Your task to perform on an android device: Go to eBay Image 0: 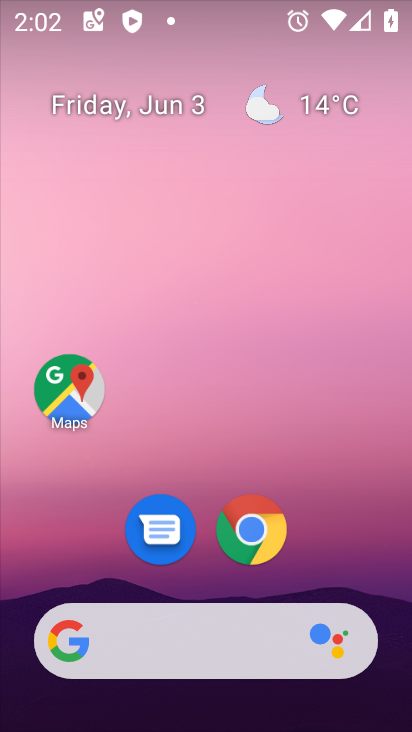
Step 0: drag from (350, 567) to (348, 168)
Your task to perform on an android device: Go to eBay Image 1: 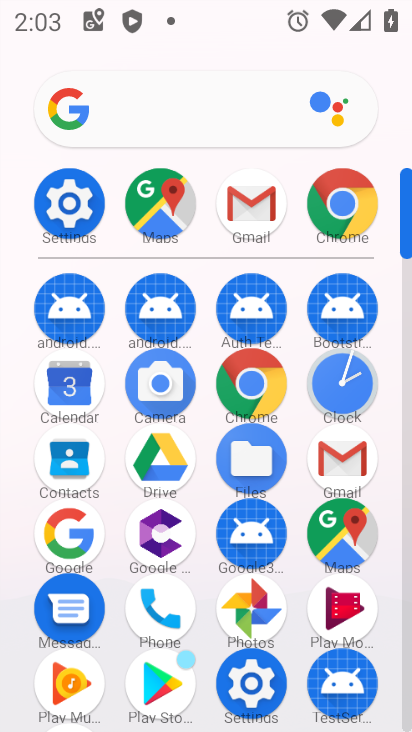
Step 1: click (260, 388)
Your task to perform on an android device: Go to eBay Image 2: 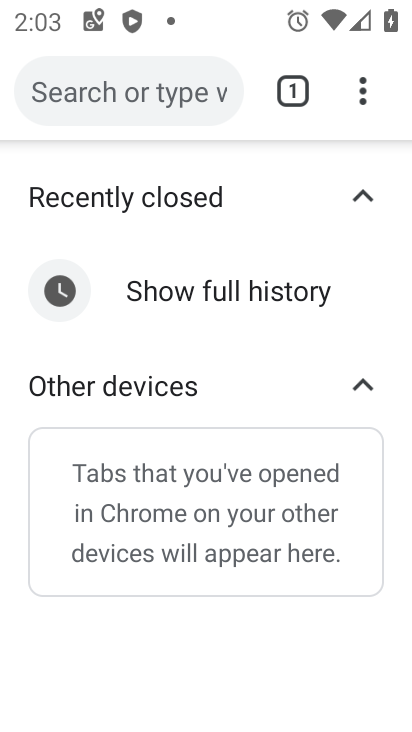
Step 2: click (187, 100)
Your task to perform on an android device: Go to eBay Image 3: 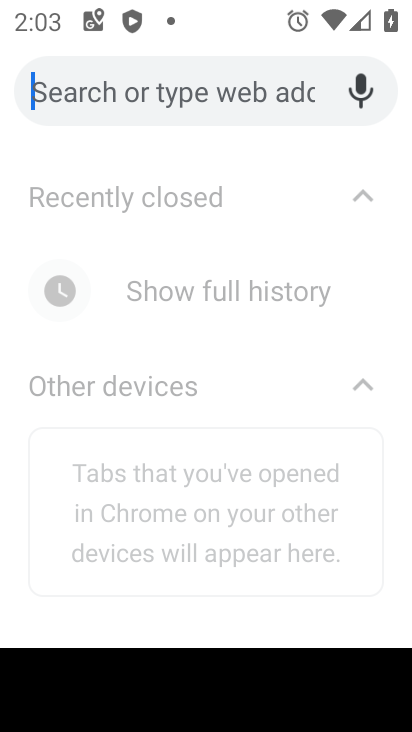
Step 3: type "ebay"
Your task to perform on an android device: Go to eBay Image 4: 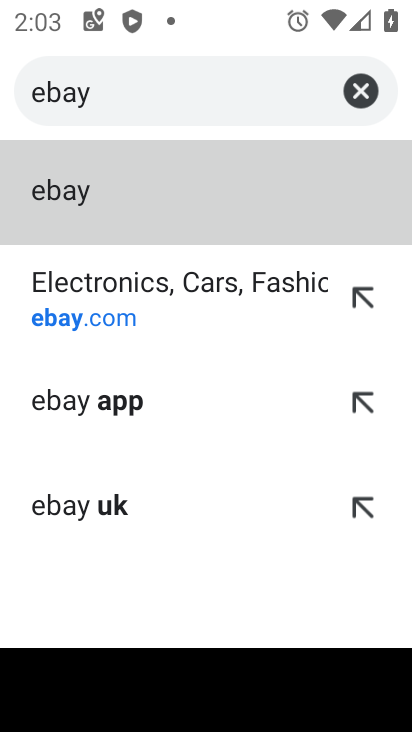
Step 4: click (230, 203)
Your task to perform on an android device: Go to eBay Image 5: 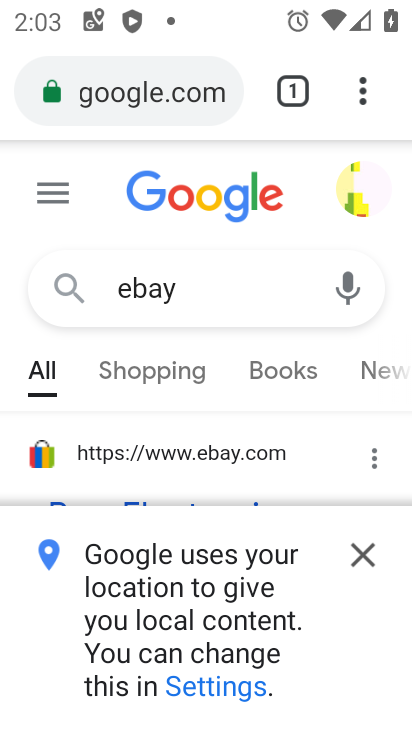
Step 5: task complete